Your task to perform on an android device: Add "apple airpods pro" to the cart on target, then select checkout. Image 0: 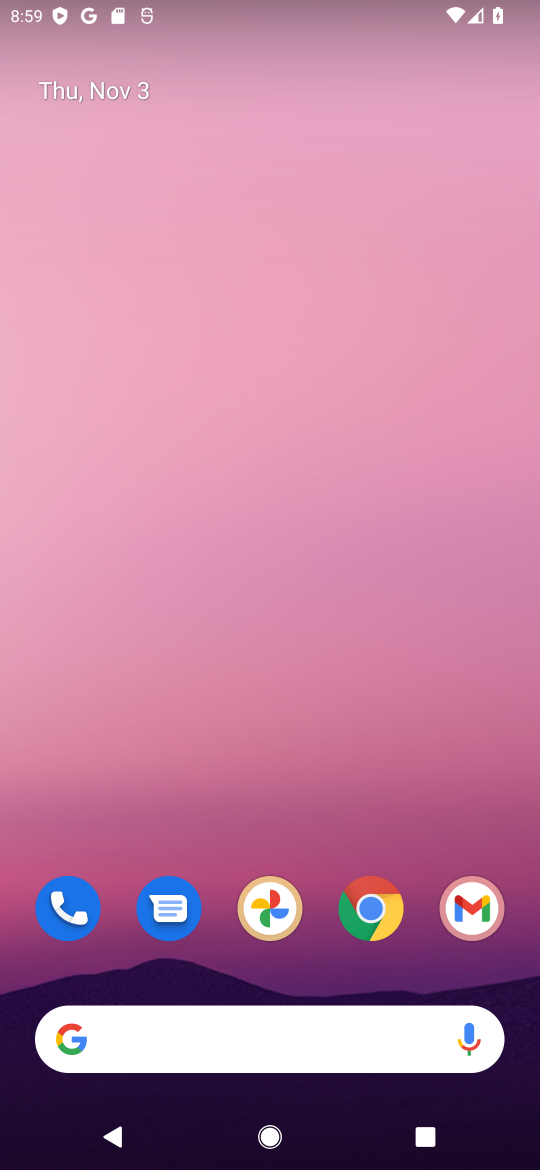
Step 0: click (385, 908)
Your task to perform on an android device: Add "apple airpods pro" to the cart on target, then select checkout. Image 1: 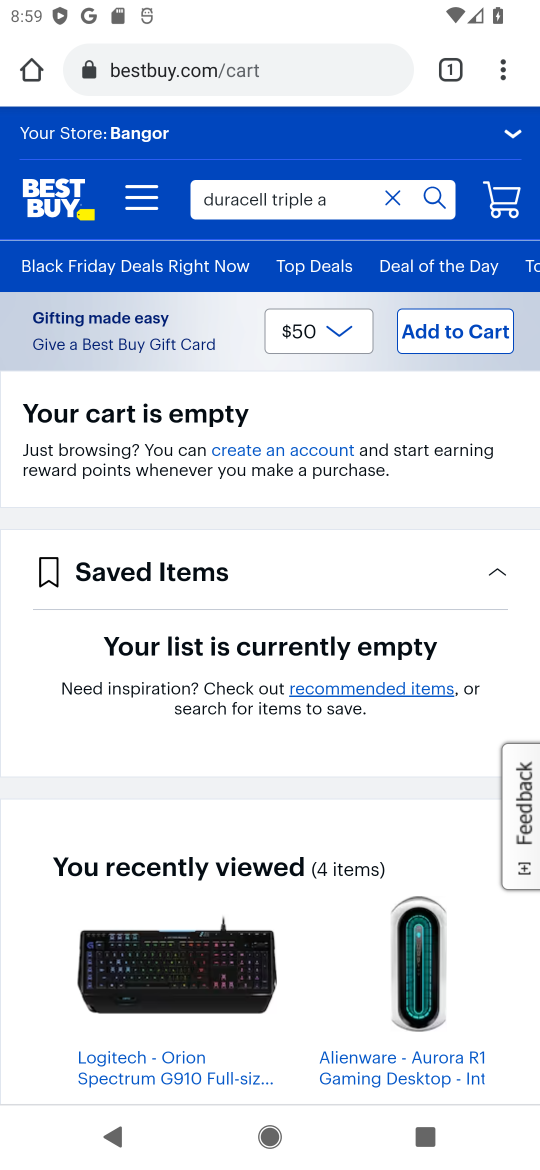
Step 1: click (306, 55)
Your task to perform on an android device: Add "apple airpods pro" to the cart on target, then select checkout. Image 2: 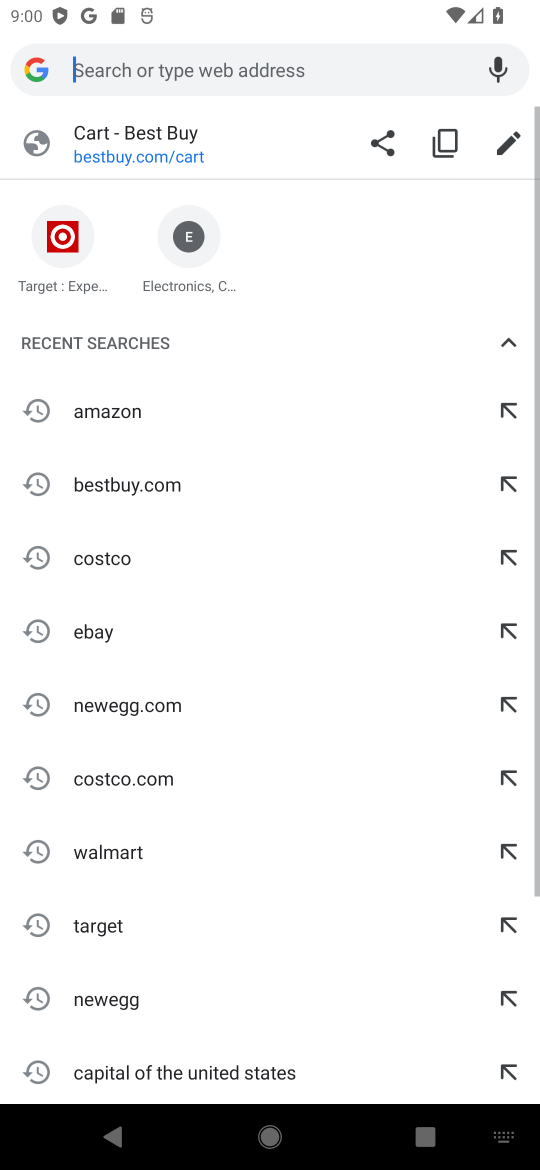
Step 2: click (67, 242)
Your task to perform on an android device: Add "apple airpods pro" to the cart on target, then select checkout. Image 3: 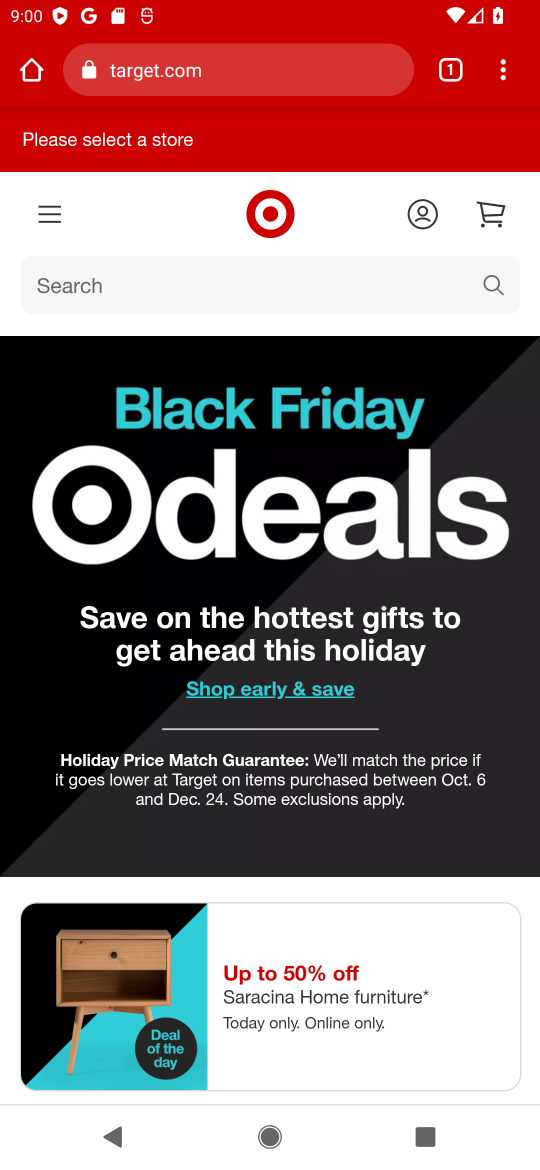
Step 3: click (494, 289)
Your task to perform on an android device: Add "apple airpods pro" to the cart on target, then select checkout. Image 4: 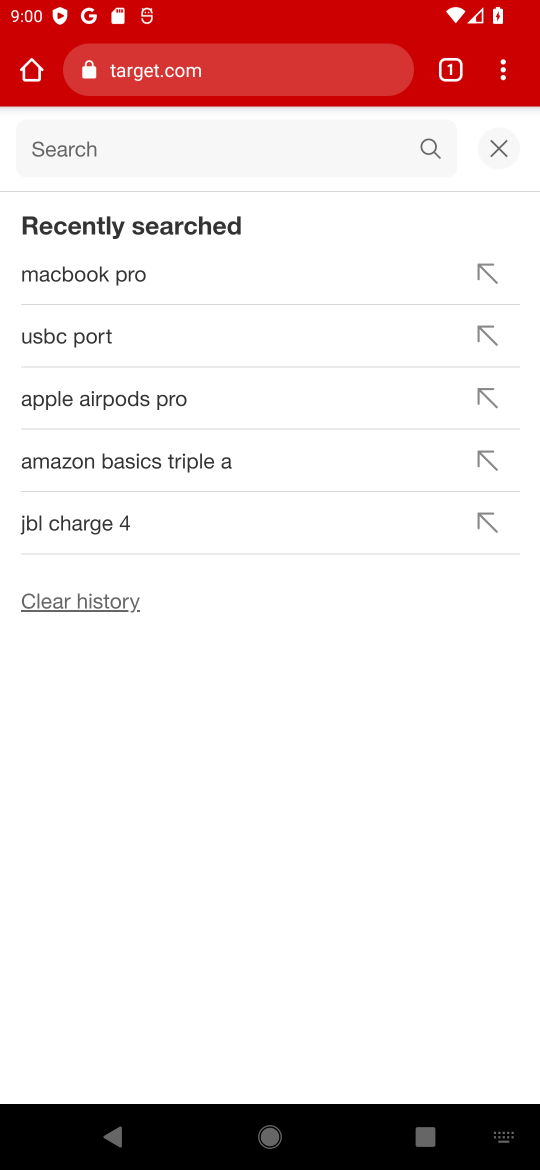
Step 4: type "apple airpods pro"
Your task to perform on an android device: Add "apple airpods pro" to the cart on target, then select checkout. Image 5: 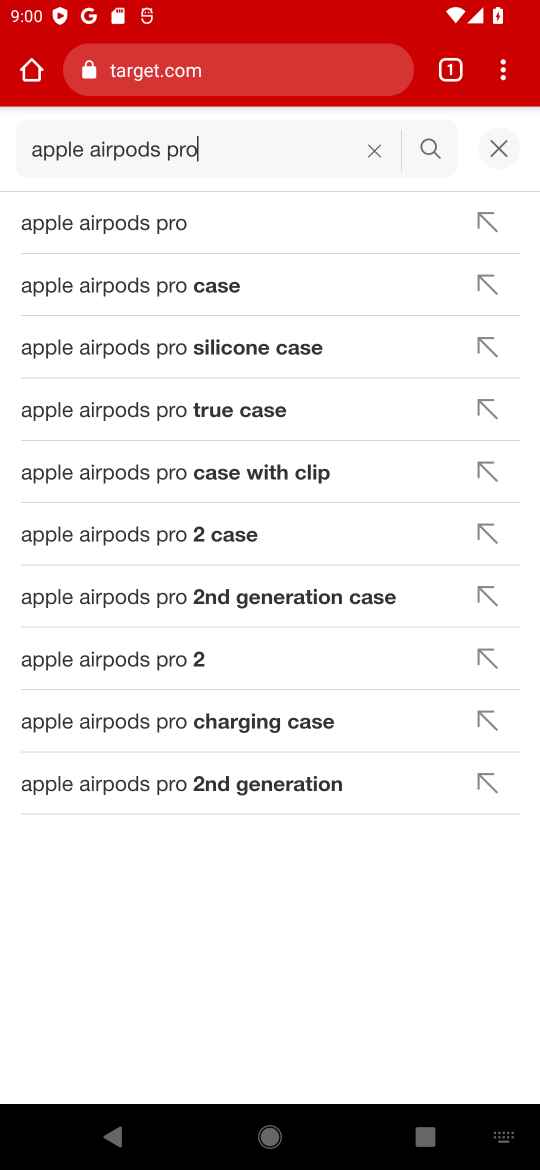
Step 5: click (136, 219)
Your task to perform on an android device: Add "apple airpods pro" to the cart on target, then select checkout. Image 6: 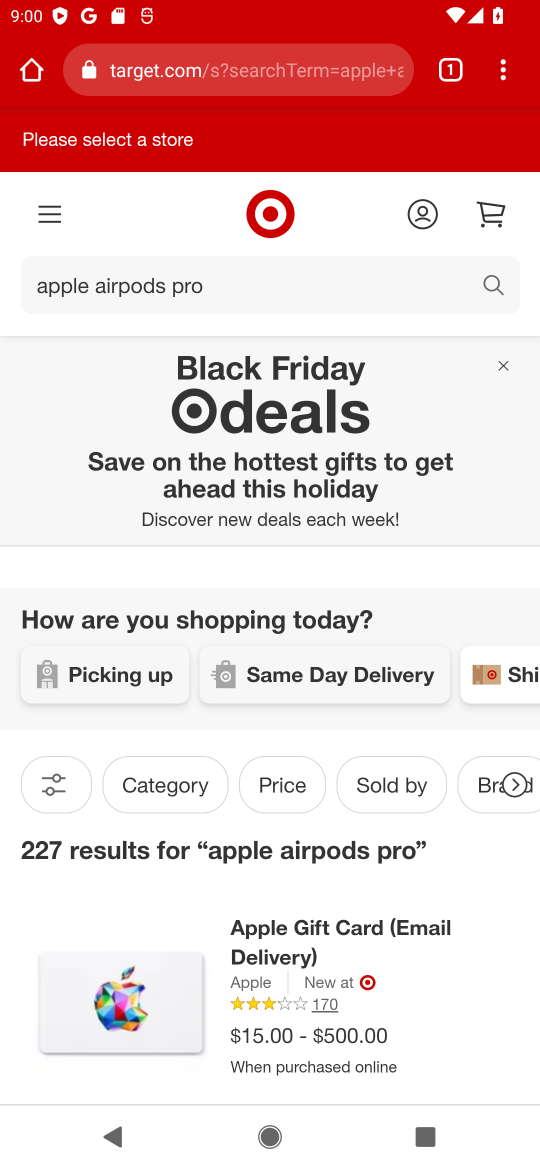
Step 6: drag from (399, 963) to (391, 490)
Your task to perform on an android device: Add "apple airpods pro" to the cart on target, then select checkout. Image 7: 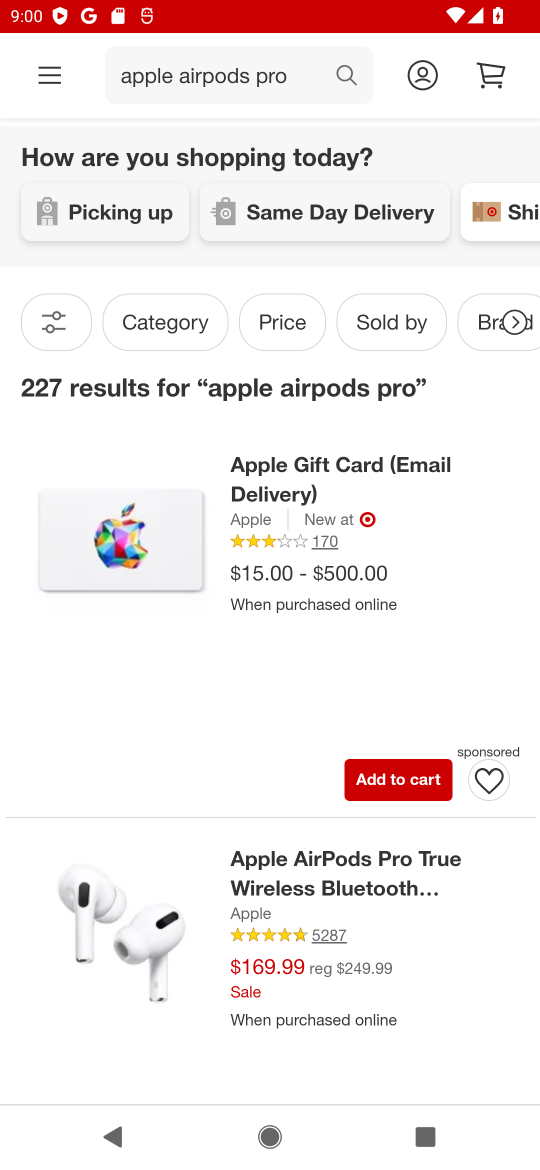
Step 7: click (319, 858)
Your task to perform on an android device: Add "apple airpods pro" to the cart on target, then select checkout. Image 8: 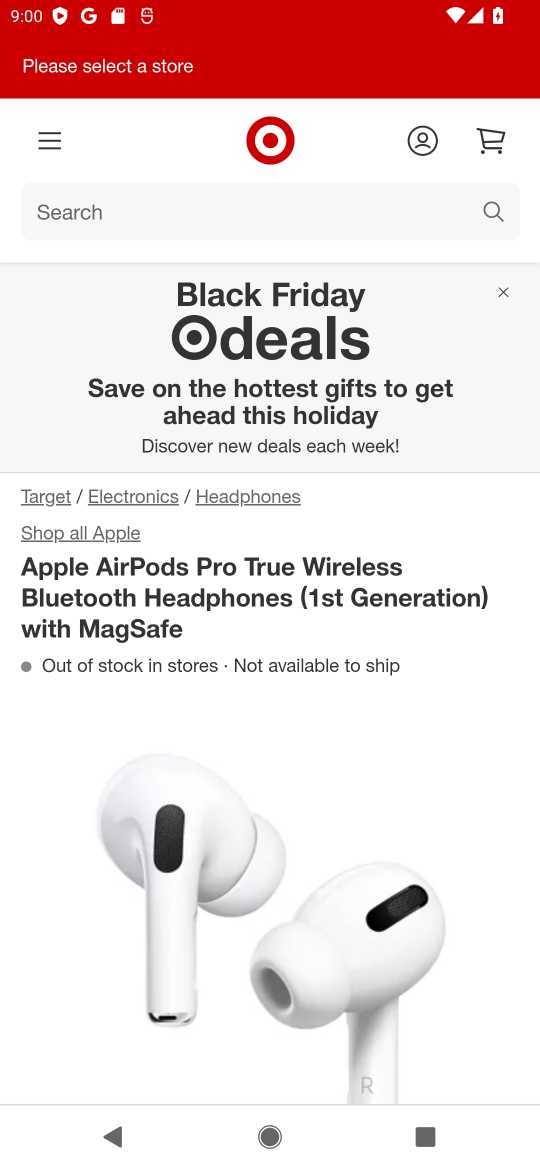
Step 8: drag from (345, 823) to (398, 333)
Your task to perform on an android device: Add "apple airpods pro" to the cart on target, then select checkout. Image 9: 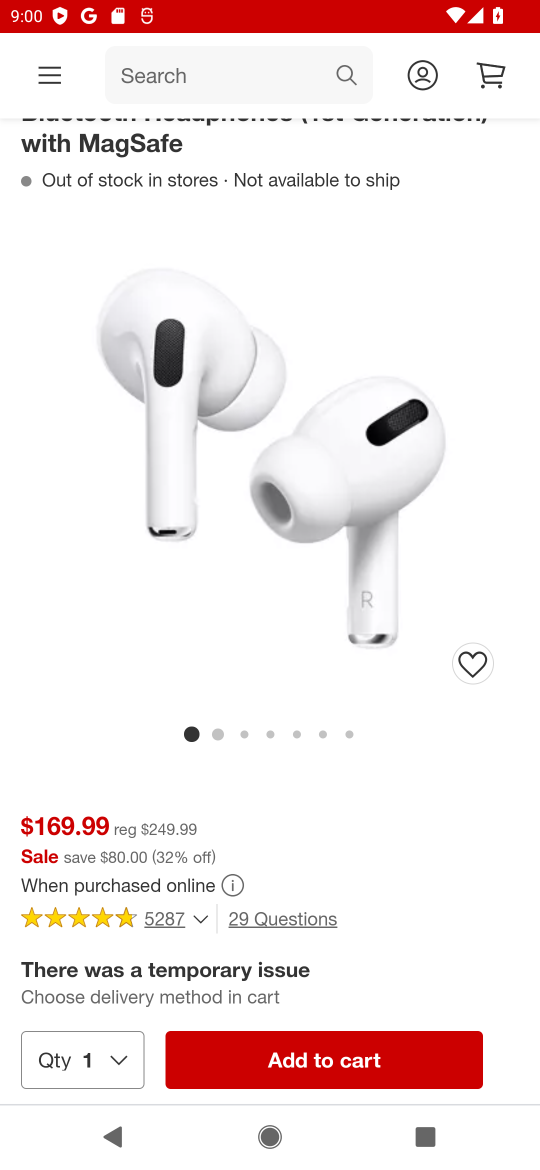
Step 9: click (387, 1058)
Your task to perform on an android device: Add "apple airpods pro" to the cart on target, then select checkout. Image 10: 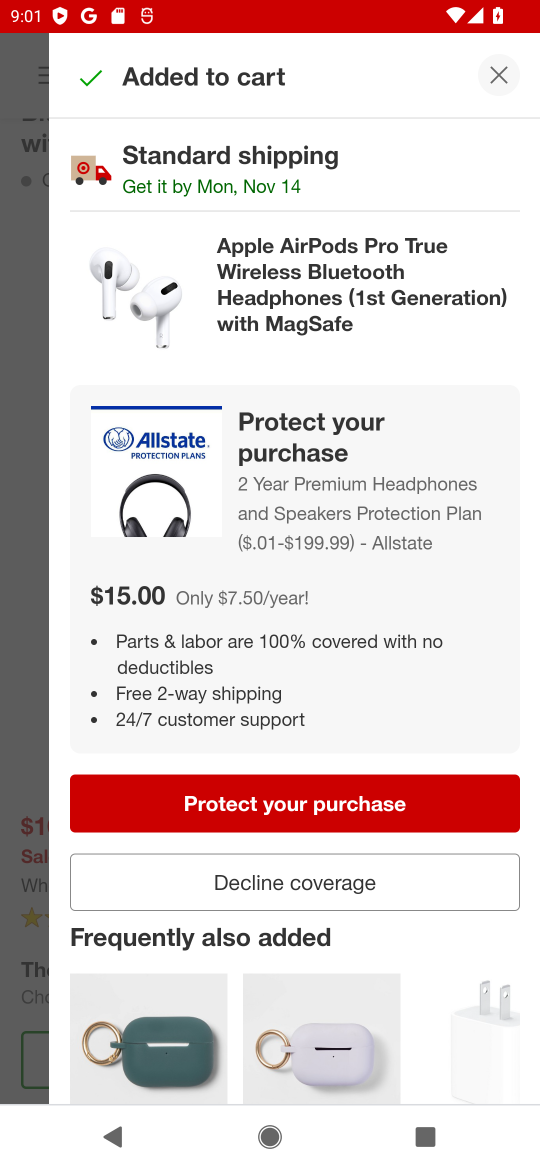
Step 10: click (496, 70)
Your task to perform on an android device: Add "apple airpods pro" to the cart on target, then select checkout. Image 11: 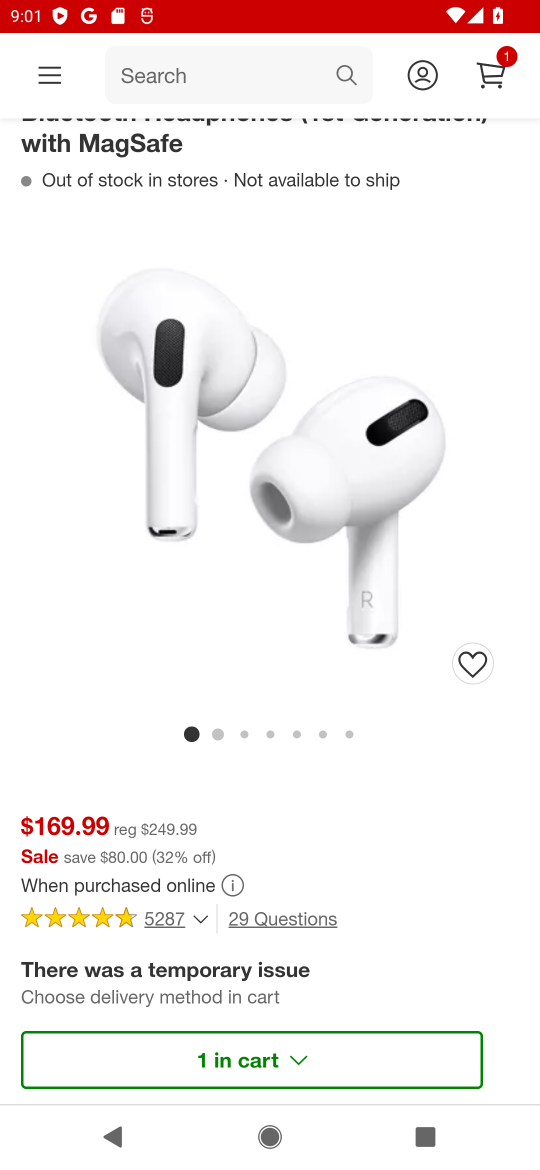
Step 11: click (492, 86)
Your task to perform on an android device: Add "apple airpods pro" to the cart on target, then select checkout. Image 12: 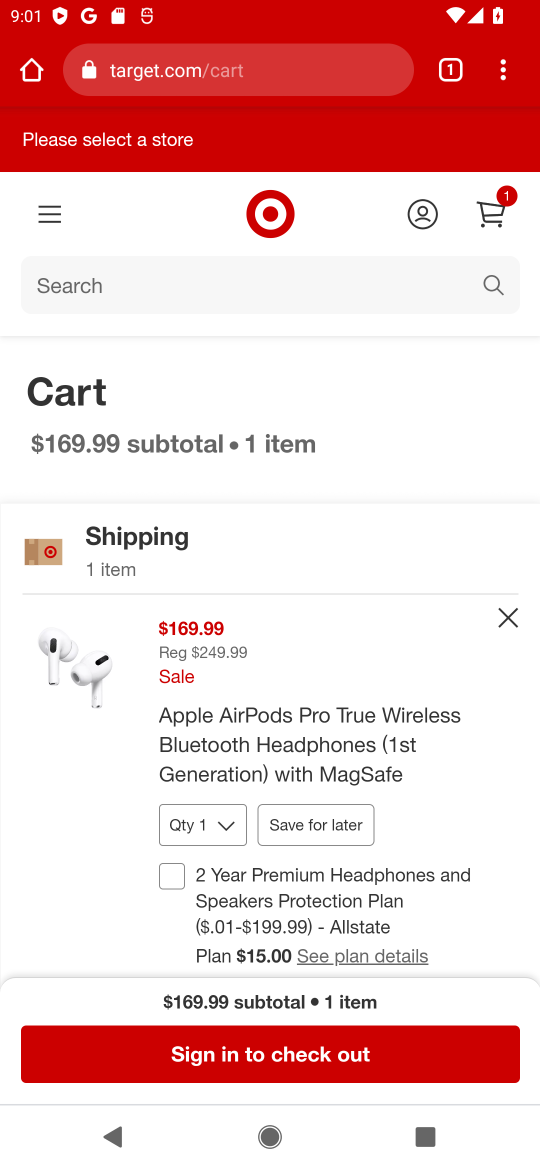
Step 12: click (396, 1059)
Your task to perform on an android device: Add "apple airpods pro" to the cart on target, then select checkout. Image 13: 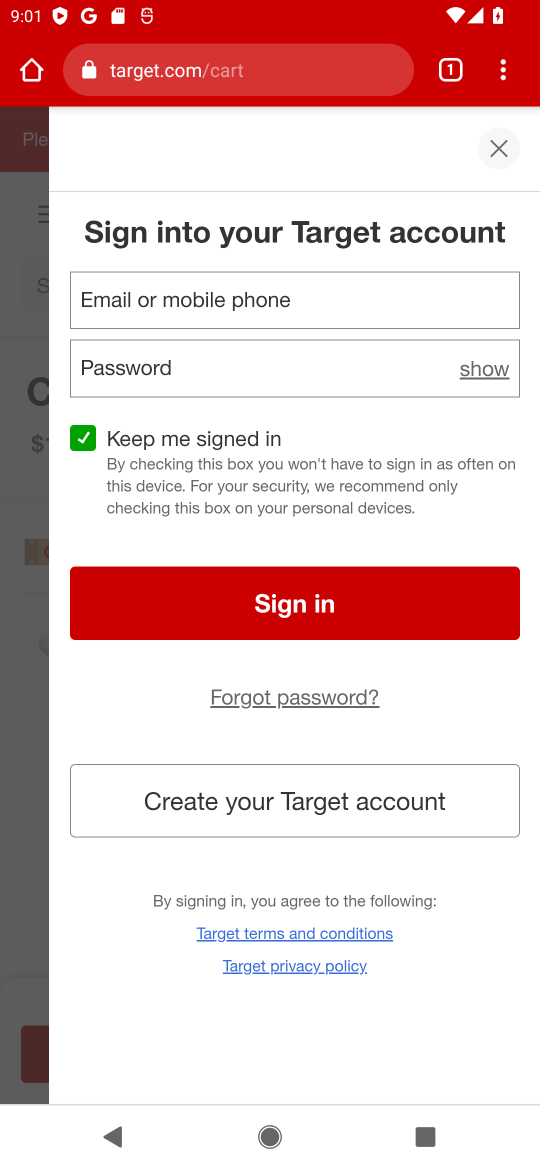
Step 13: task complete